Your task to perform on an android device: open a new tab in the chrome app Image 0: 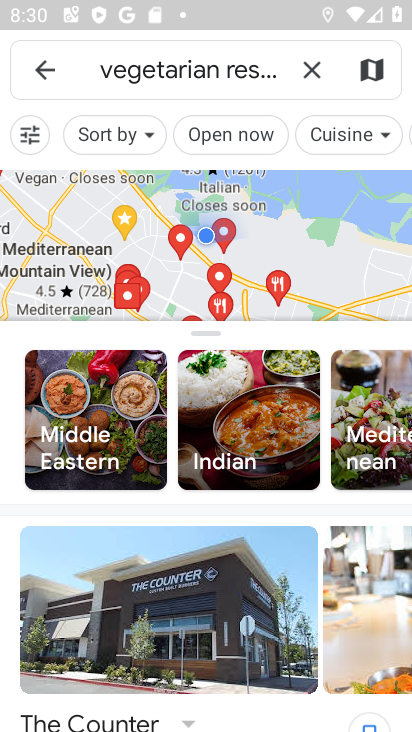
Step 0: press home button
Your task to perform on an android device: open a new tab in the chrome app Image 1: 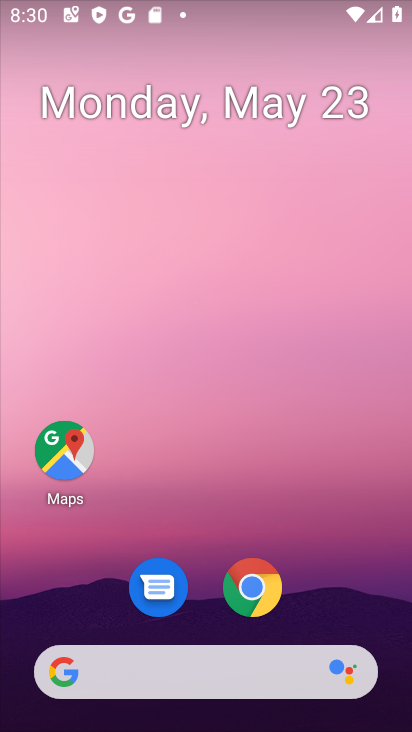
Step 1: click (248, 587)
Your task to perform on an android device: open a new tab in the chrome app Image 2: 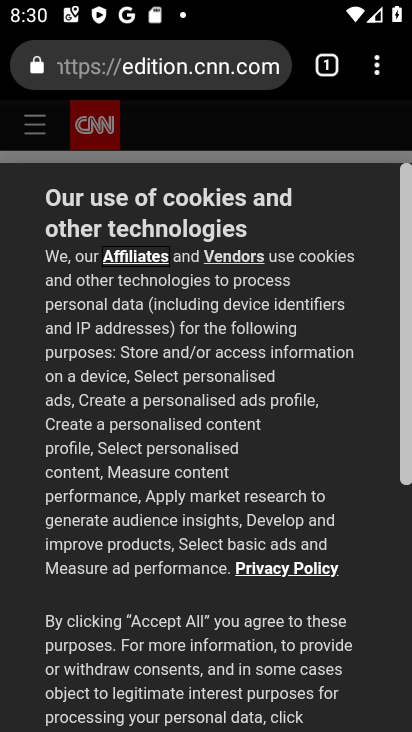
Step 2: task complete